Your task to perform on an android device: Open Maps and search for coffee Image 0: 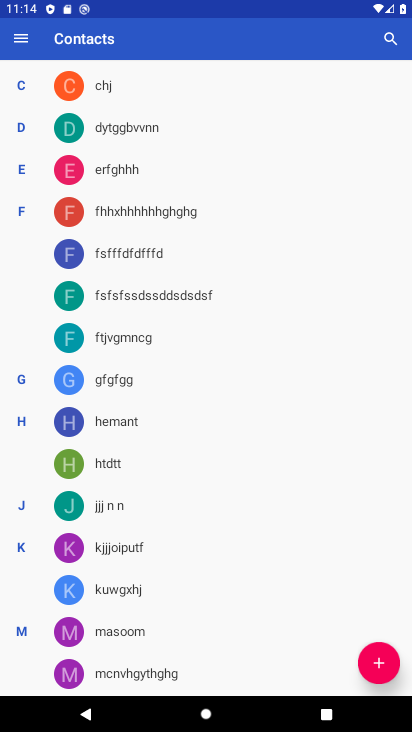
Step 0: press home button
Your task to perform on an android device: Open Maps and search for coffee Image 1: 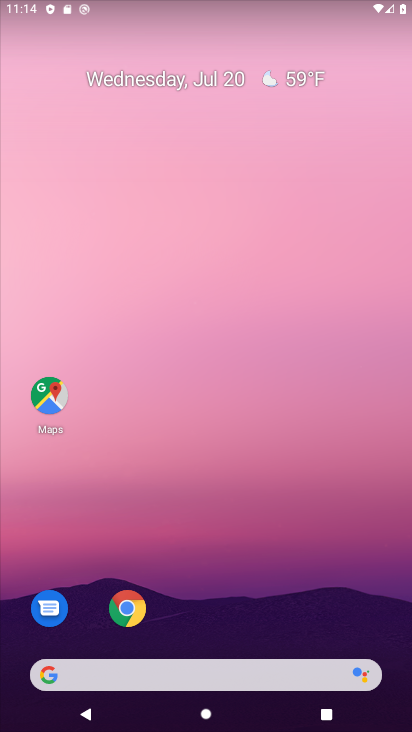
Step 1: drag from (314, 615) to (370, 69)
Your task to perform on an android device: Open Maps and search for coffee Image 2: 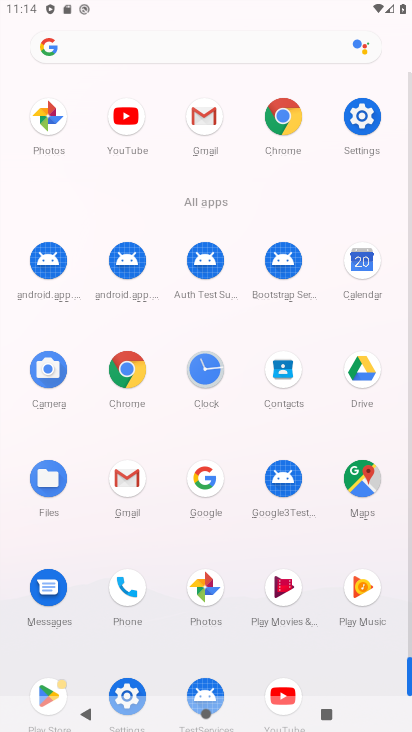
Step 2: click (363, 484)
Your task to perform on an android device: Open Maps and search for coffee Image 3: 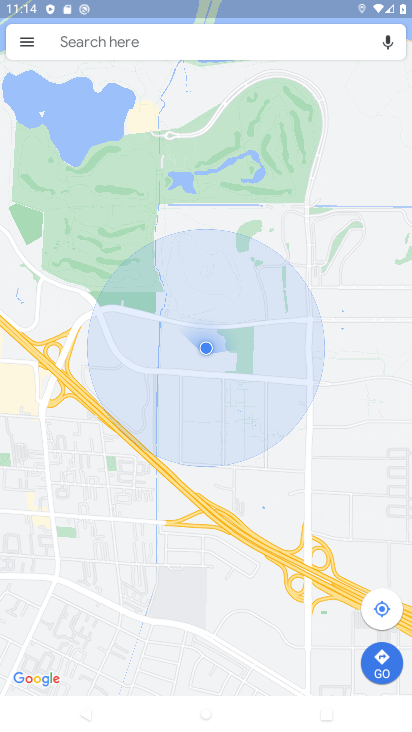
Step 3: click (223, 45)
Your task to perform on an android device: Open Maps and search for coffee Image 4: 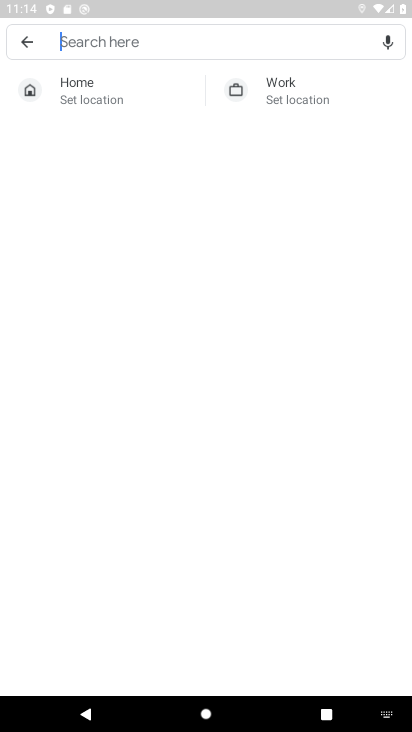
Step 4: type "coffee"
Your task to perform on an android device: Open Maps and search for coffee Image 5: 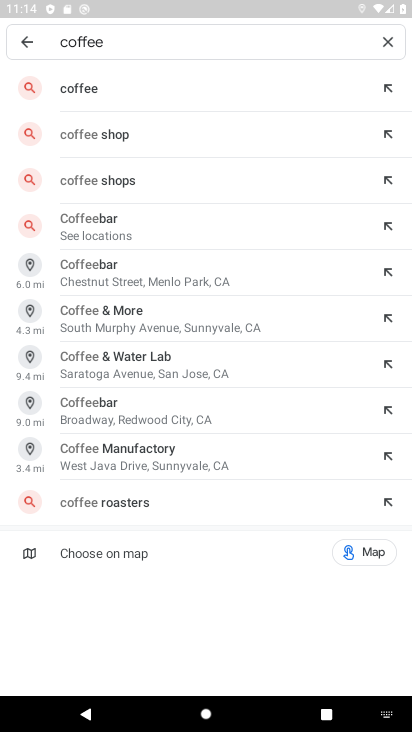
Step 5: click (209, 79)
Your task to perform on an android device: Open Maps and search for coffee Image 6: 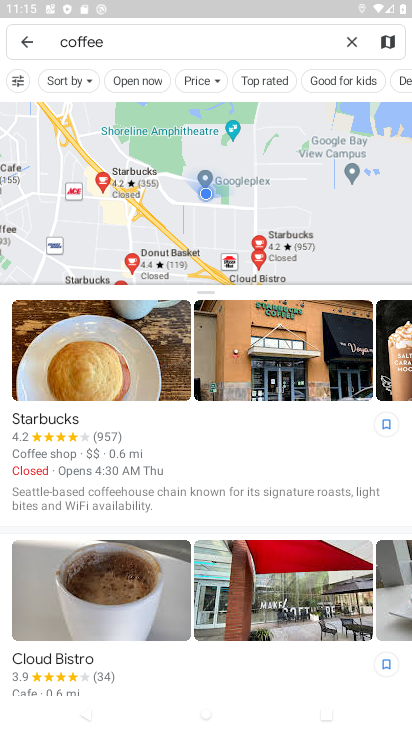
Step 6: task complete